Your task to perform on an android device: Open wifi settings Image 0: 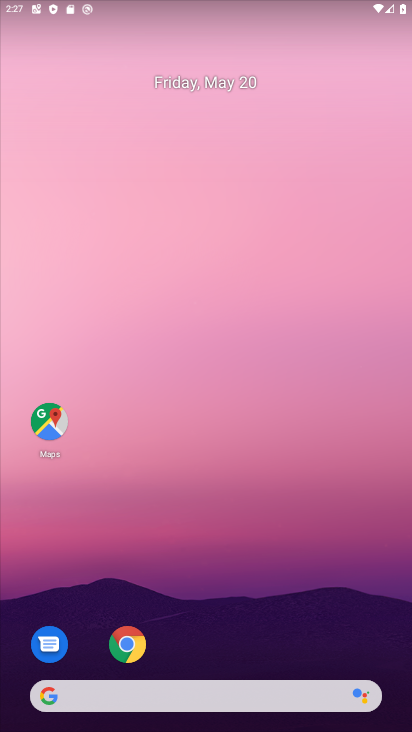
Step 0: drag from (283, 9) to (309, 457)
Your task to perform on an android device: Open wifi settings Image 1: 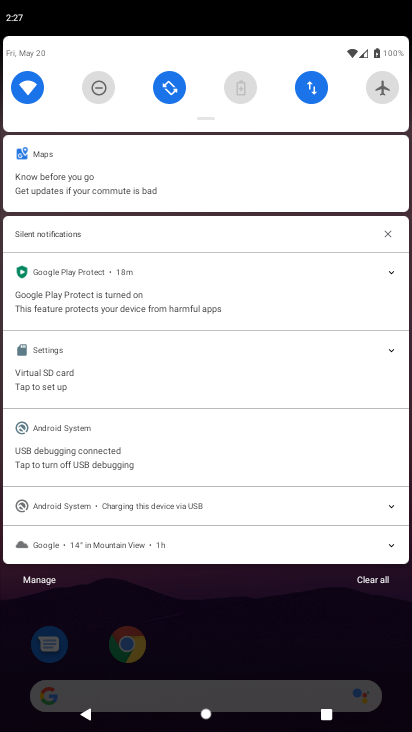
Step 1: click (31, 83)
Your task to perform on an android device: Open wifi settings Image 2: 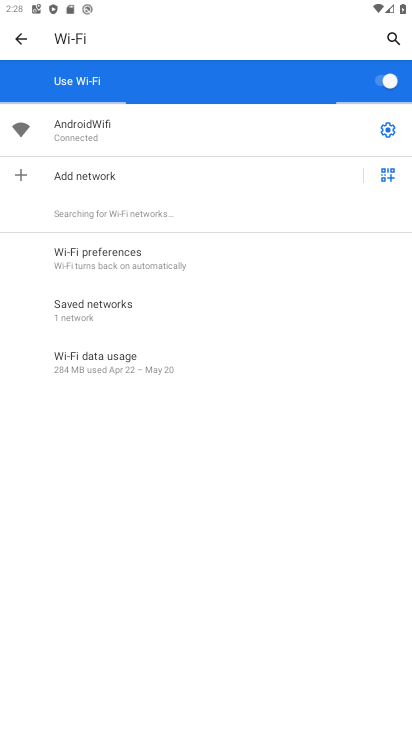
Step 2: task complete